Your task to perform on an android device: set the timer Image 0: 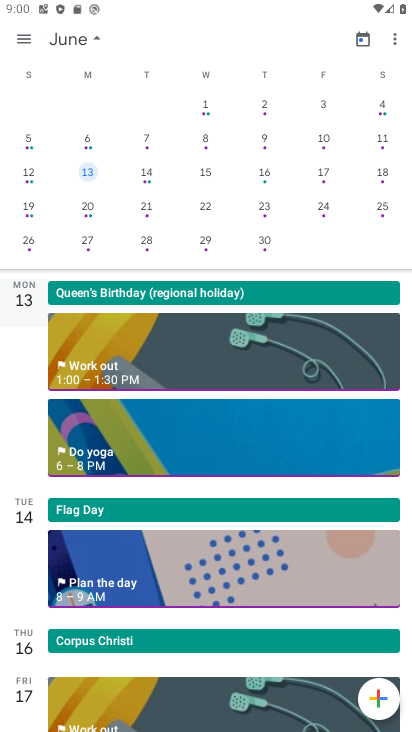
Step 0: press back button
Your task to perform on an android device: set the timer Image 1: 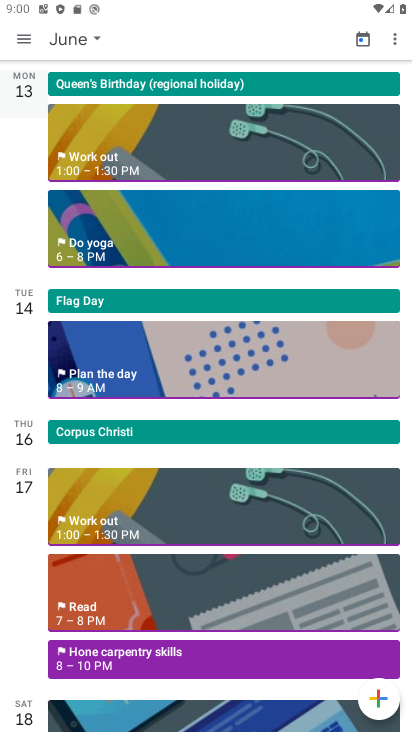
Step 1: press back button
Your task to perform on an android device: set the timer Image 2: 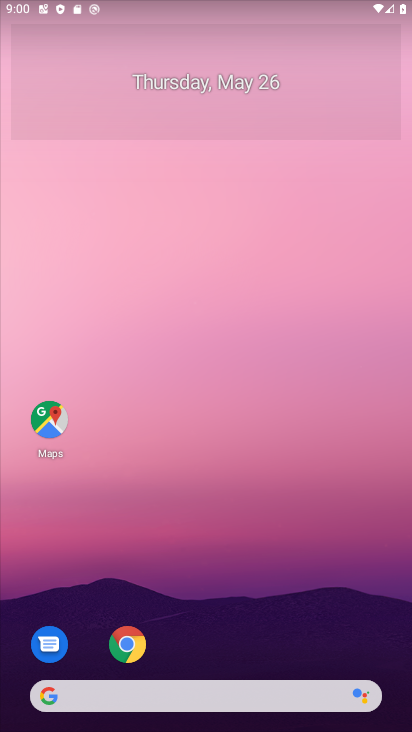
Step 2: drag from (238, 548) to (242, 97)
Your task to perform on an android device: set the timer Image 3: 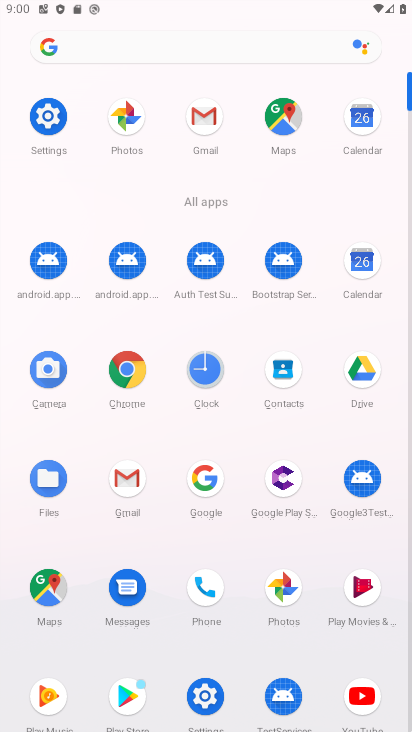
Step 3: click (208, 384)
Your task to perform on an android device: set the timer Image 4: 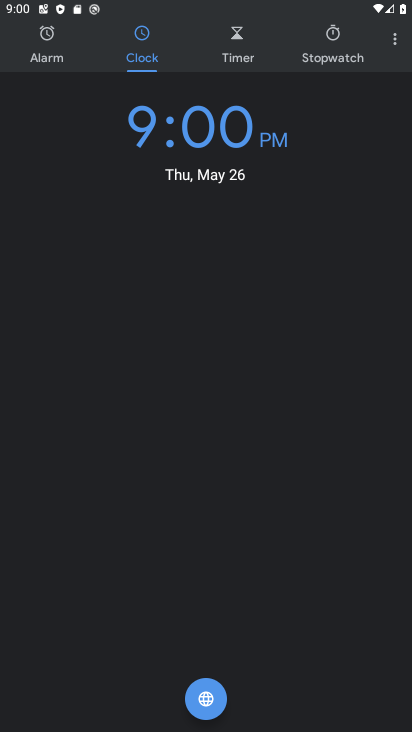
Step 4: click (247, 24)
Your task to perform on an android device: set the timer Image 5: 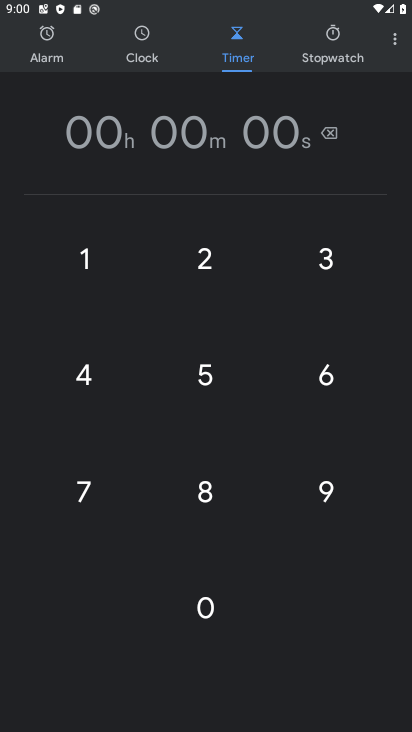
Step 5: click (251, 272)
Your task to perform on an android device: set the timer Image 6: 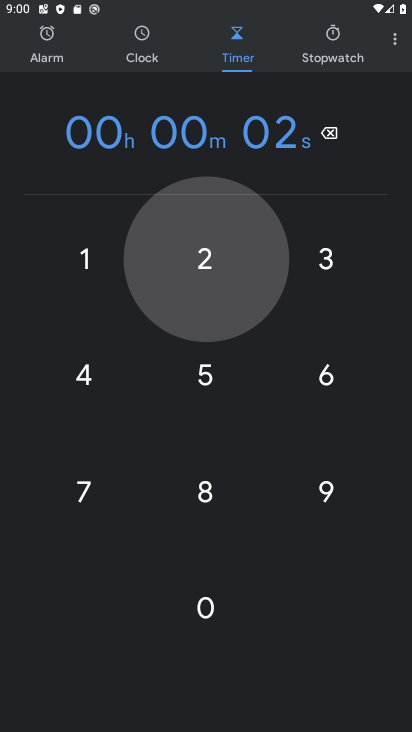
Step 6: click (297, 251)
Your task to perform on an android device: set the timer Image 7: 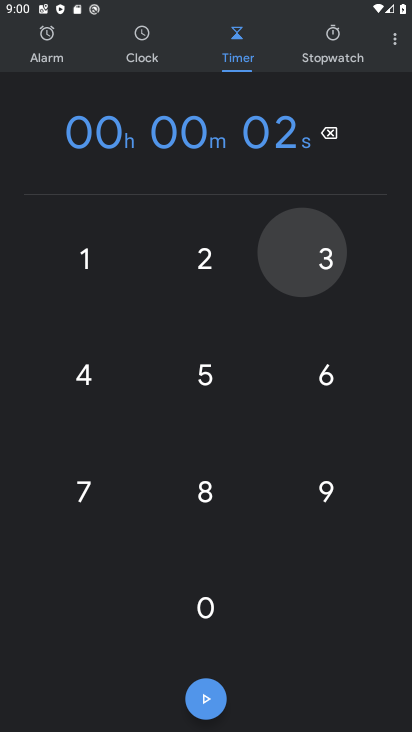
Step 7: click (188, 361)
Your task to perform on an android device: set the timer Image 8: 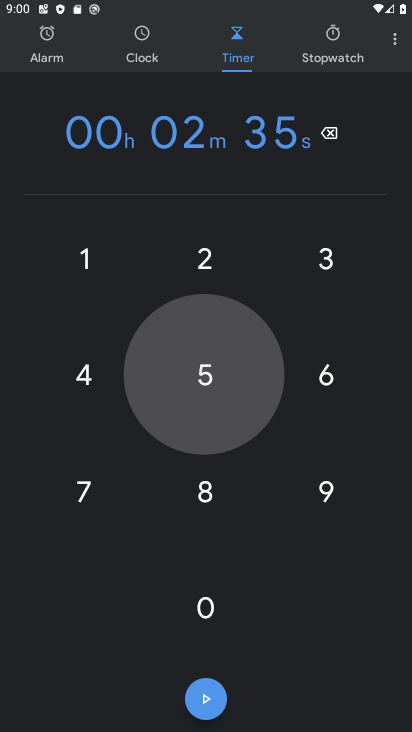
Step 8: click (265, 365)
Your task to perform on an android device: set the timer Image 9: 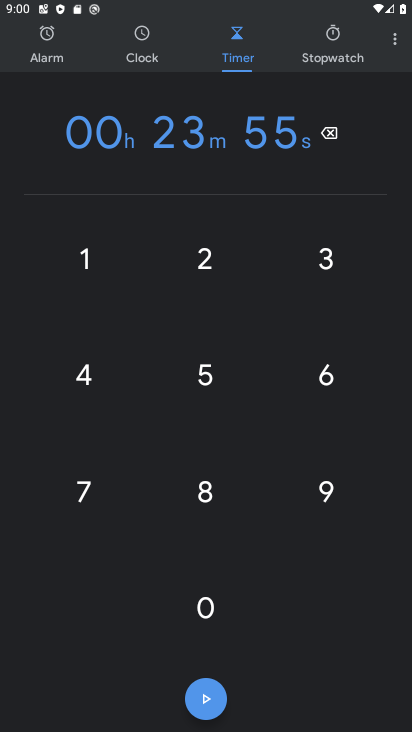
Step 9: click (181, 256)
Your task to perform on an android device: set the timer Image 10: 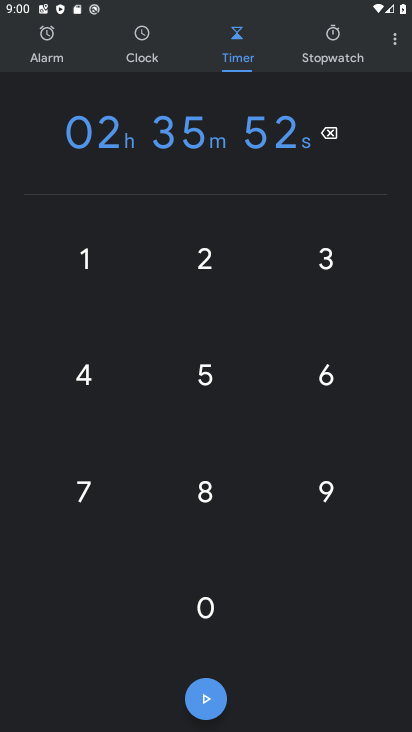
Step 10: click (211, 694)
Your task to perform on an android device: set the timer Image 11: 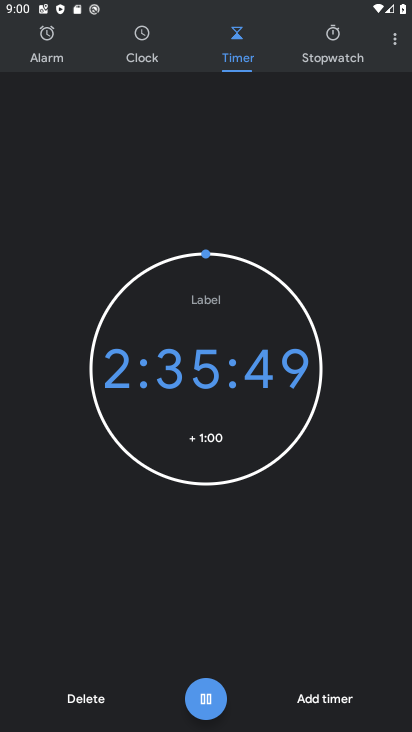
Step 11: task complete